Your task to perform on an android device: change your default location settings in chrome Image 0: 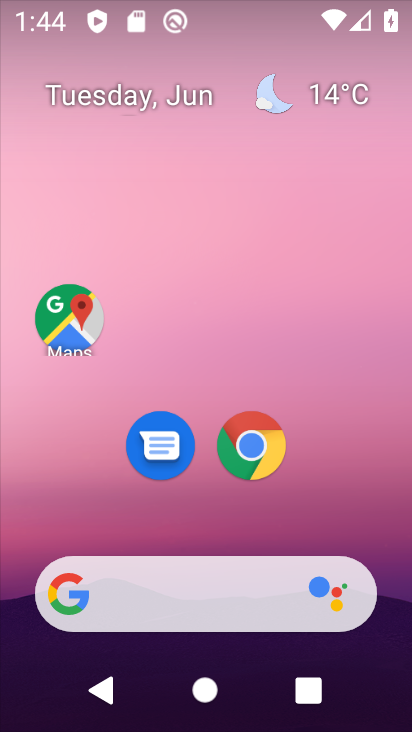
Step 0: drag from (325, 508) to (380, 225)
Your task to perform on an android device: change your default location settings in chrome Image 1: 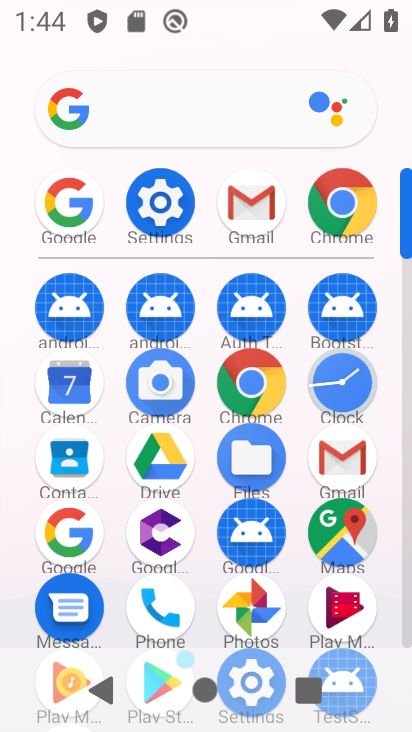
Step 1: click (267, 396)
Your task to perform on an android device: change your default location settings in chrome Image 2: 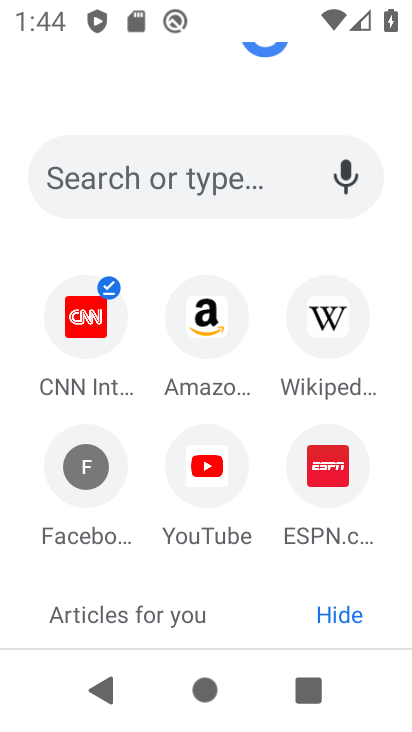
Step 2: drag from (337, 97) to (293, 478)
Your task to perform on an android device: change your default location settings in chrome Image 3: 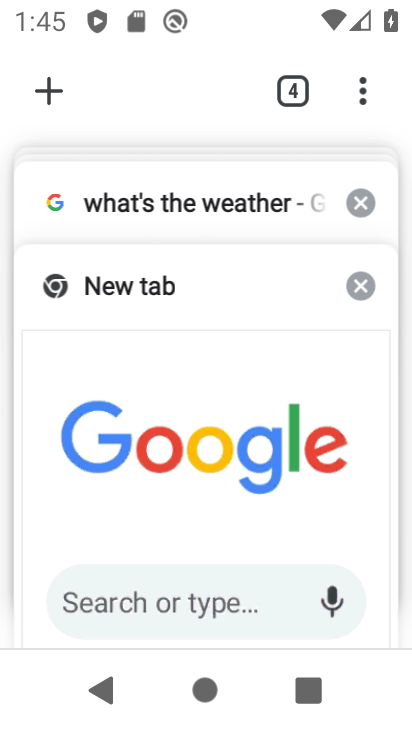
Step 3: drag from (364, 109) to (277, 358)
Your task to perform on an android device: change your default location settings in chrome Image 4: 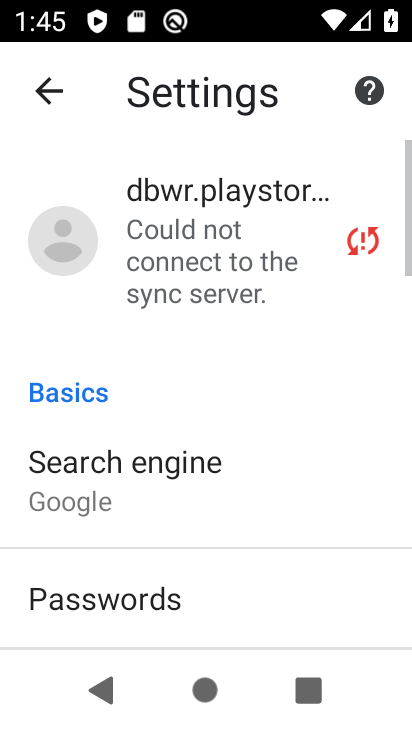
Step 4: drag from (250, 566) to (269, 288)
Your task to perform on an android device: change your default location settings in chrome Image 5: 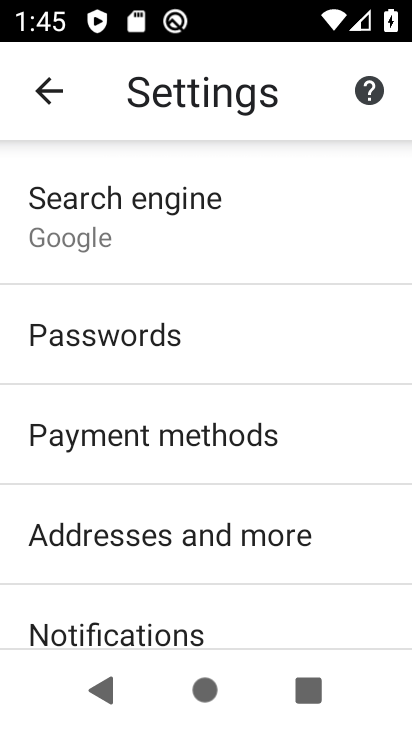
Step 5: drag from (233, 627) to (265, 299)
Your task to perform on an android device: change your default location settings in chrome Image 6: 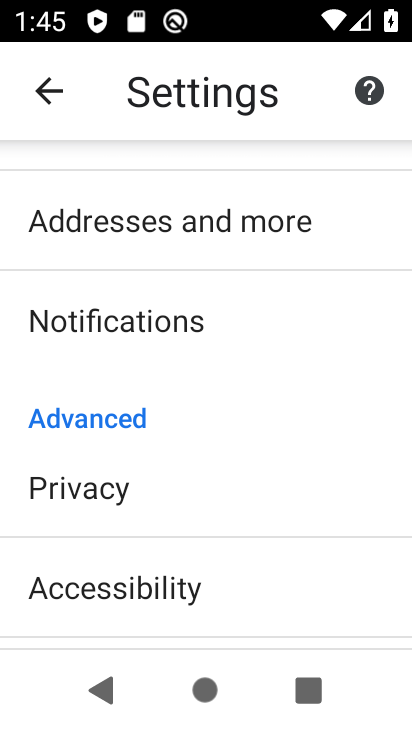
Step 6: drag from (248, 531) to (291, 277)
Your task to perform on an android device: change your default location settings in chrome Image 7: 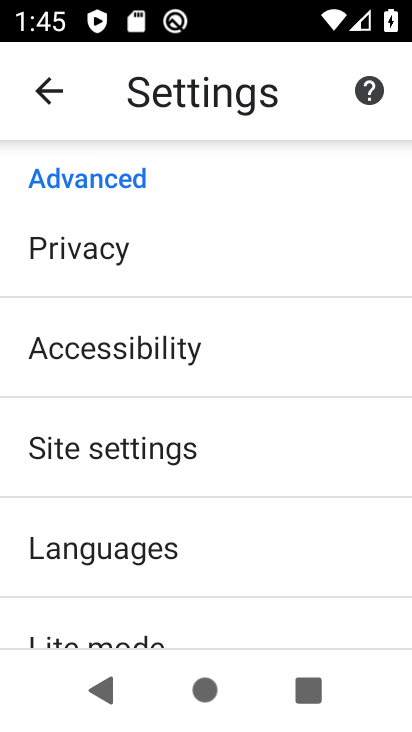
Step 7: click (232, 458)
Your task to perform on an android device: change your default location settings in chrome Image 8: 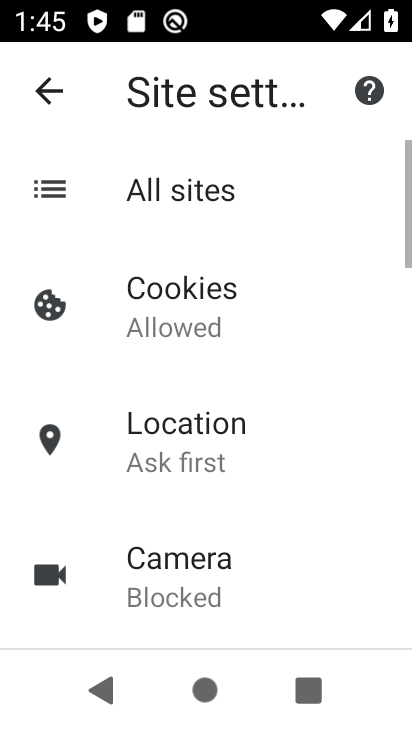
Step 8: click (230, 457)
Your task to perform on an android device: change your default location settings in chrome Image 9: 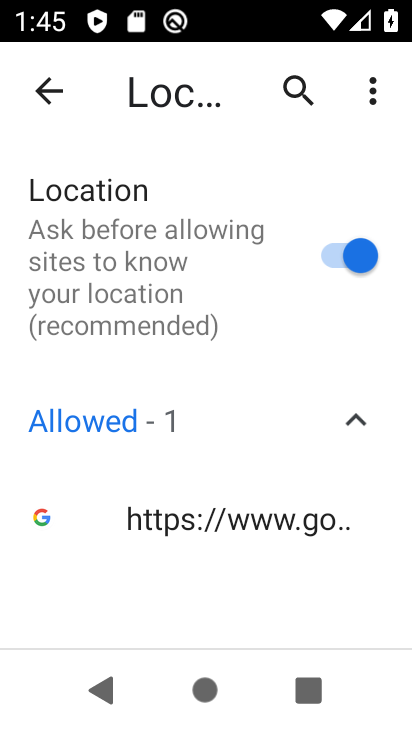
Step 9: click (355, 247)
Your task to perform on an android device: change your default location settings in chrome Image 10: 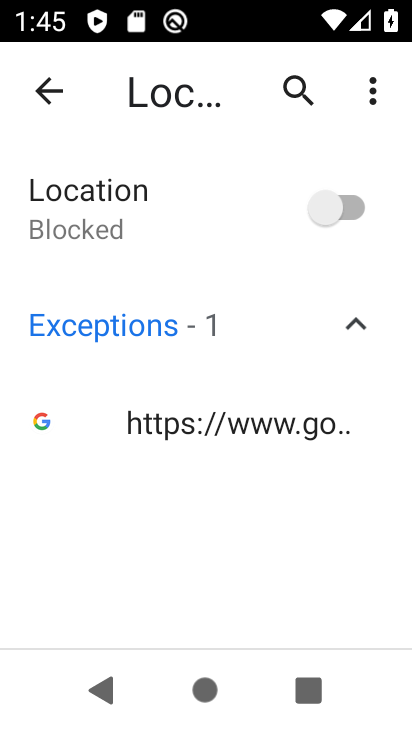
Step 10: task complete